Your task to perform on an android device: change notifications settings Image 0: 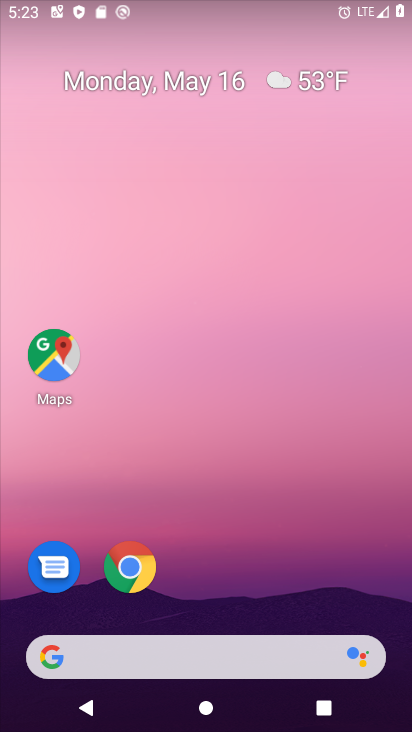
Step 0: drag from (313, 670) to (297, 57)
Your task to perform on an android device: change notifications settings Image 1: 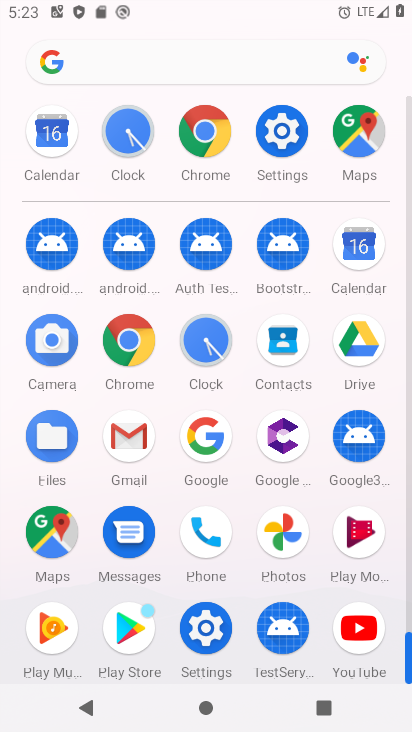
Step 1: click (278, 121)
Your task to perform on an android device: change notifications settings Image 2: 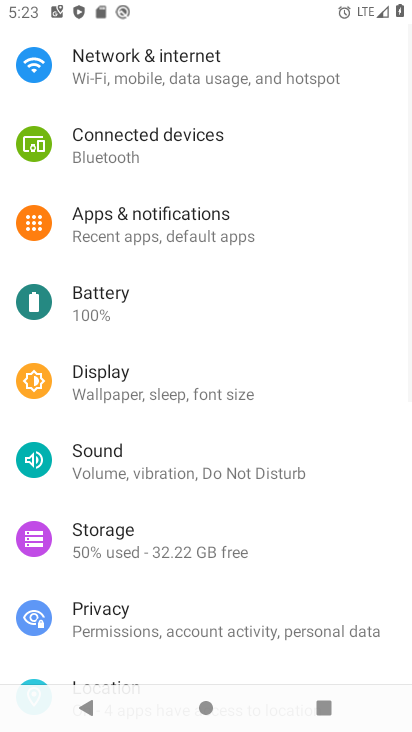
Step 2: drag from (208, 372) to (239, 563)
Your task to perform on an android device: change notifications settings Image 3: 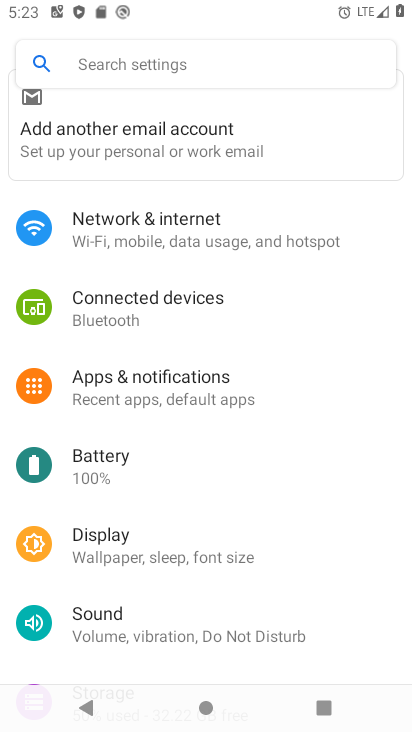
Step 3: click (246, 399)
Your task to perform on an android device: change notifications settings Image 4: 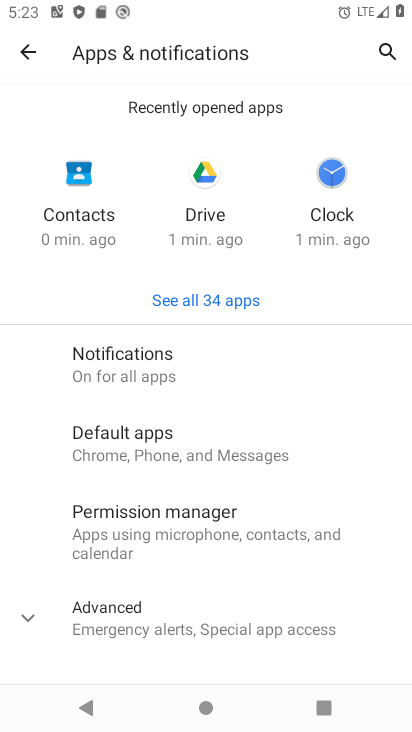
Step 4: click (171, 387)
Your task to perform on an android device: change notifications settings Image 5: 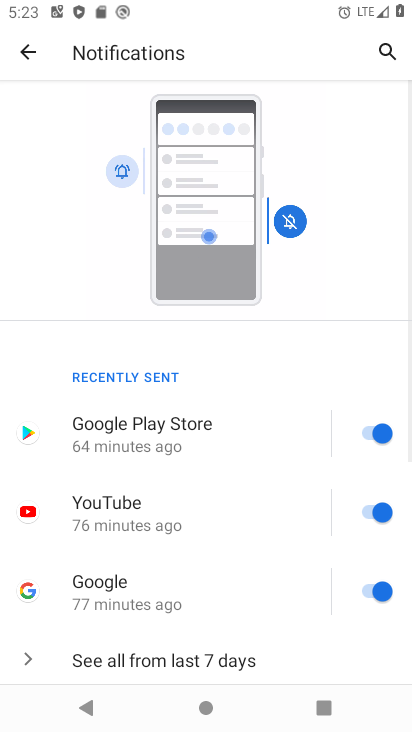
Step 5: task complete